Your task to perform on an android device: Open CNN.com Image 0: 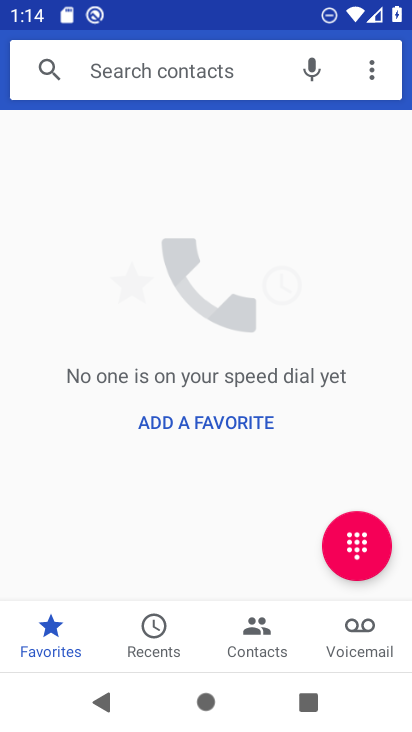
Step 0: press home button
Your task to perform on an android device: Open CNN.com Image 1: 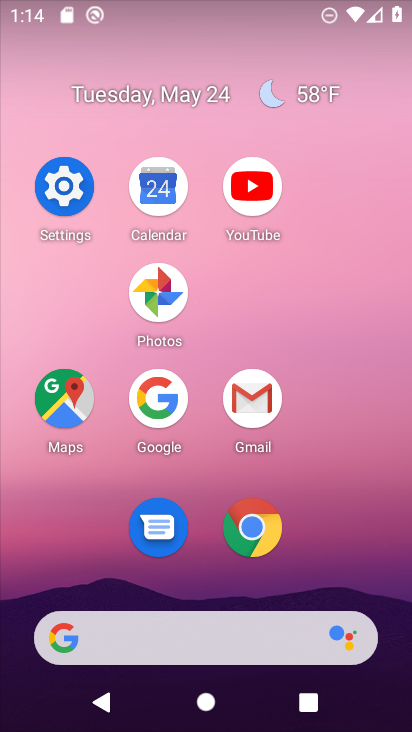
Step 1: click (254, 512)
Your task to perform on an android device: Open CNN.com Image 2: 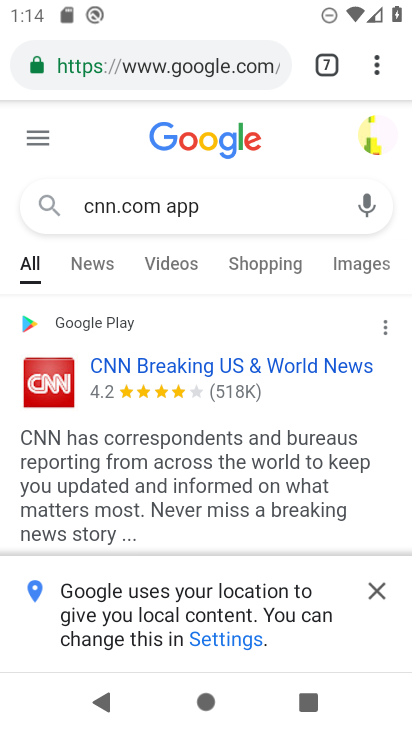
Step 2: click (333, 54)
Your task to perform on an android device: Open CNN.com Image 3: 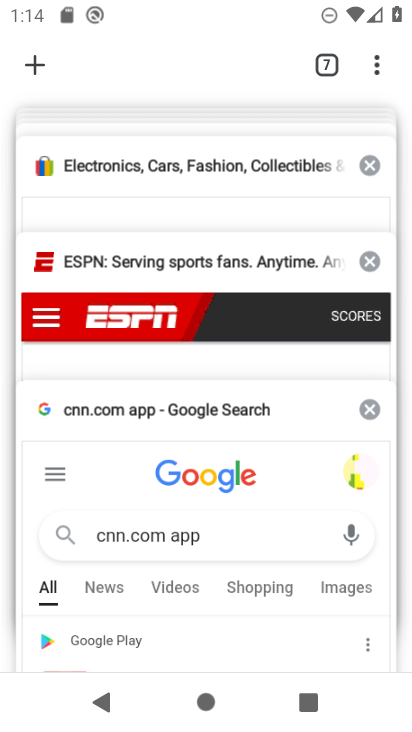
Step 3: click (132, 441)
Your task to perform on an android device: Open CNN.com Image 4: 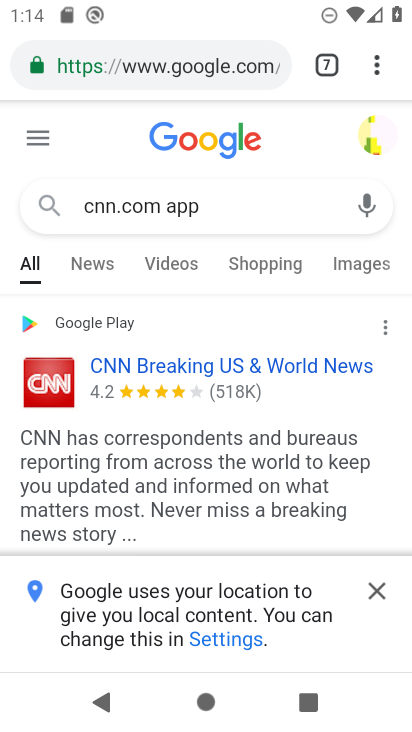
Step 4: drag from (130, 575) to (196, 239)
Your task to perform on an android device: Open CNN.com Image 5: 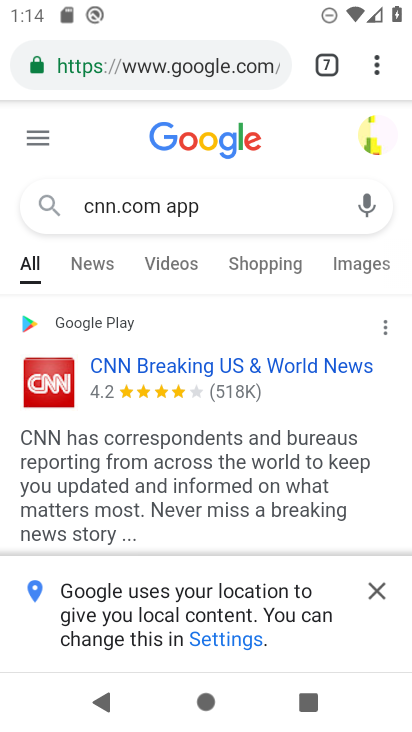
Step 5: click (382, 588)
Your task to perform on an android device: Open CNN.com Image 6: 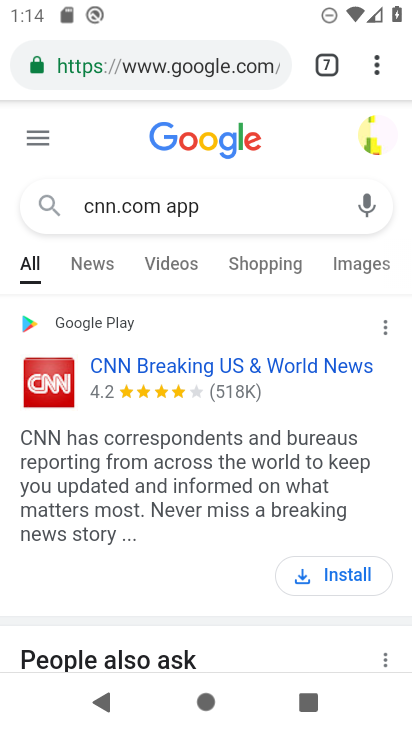
Step 6: drag from (117, 510) to (164, 156)
Your task to perform on an android device: Open CNN.com Image 7: 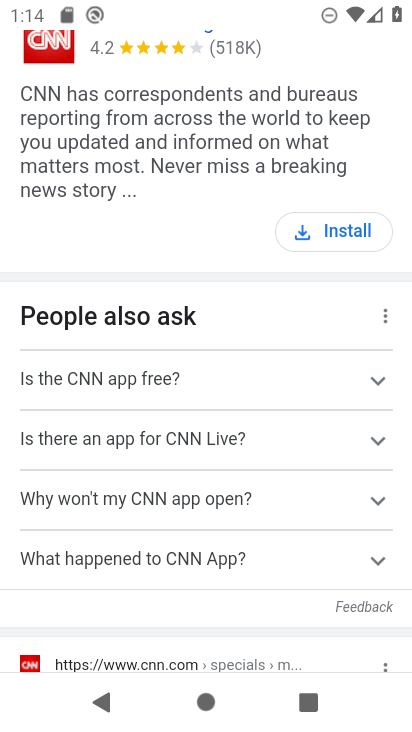
Step 7: drag from (202, 597) to (244, 223)
Your task to perform on an android device: Open CNN.com Image 8: 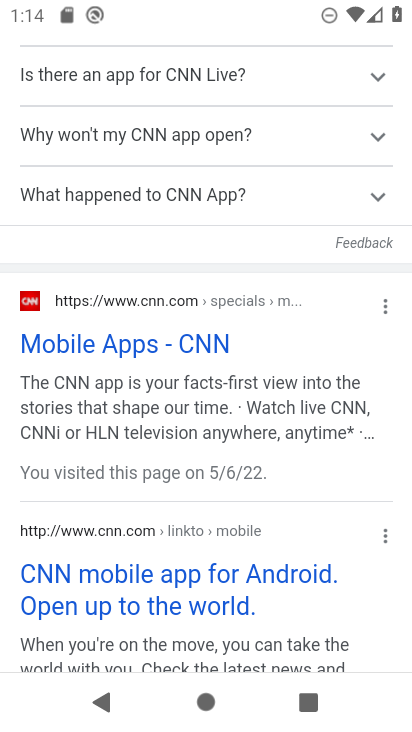
Step 8: click (182, 312)
Your task to perform on an android device: Open CNN.com Image 9: 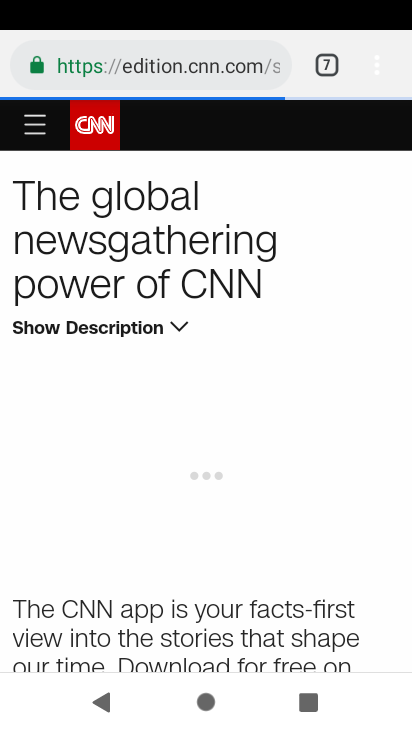
Step 9: task complete